Your task to perform on an android device: install app "Contacts" Image 0: 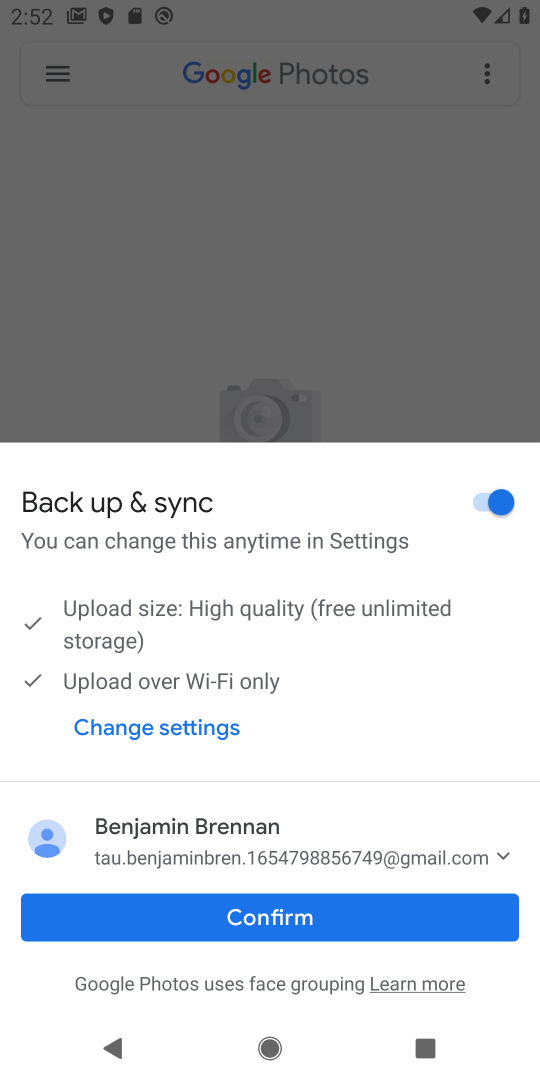
Step 0: press home button
Your task to perform on an android device: install app "Contacts" Image 1: 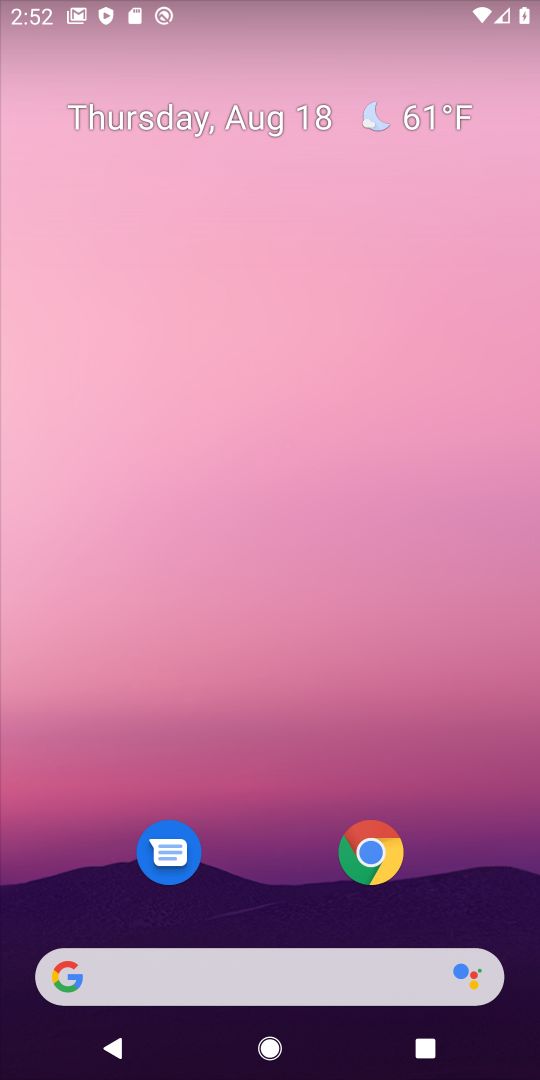
Step 1: drag from (275, 899) to (275, 41)
Your task to perform on an android device: install app "Contacts" Image 2: 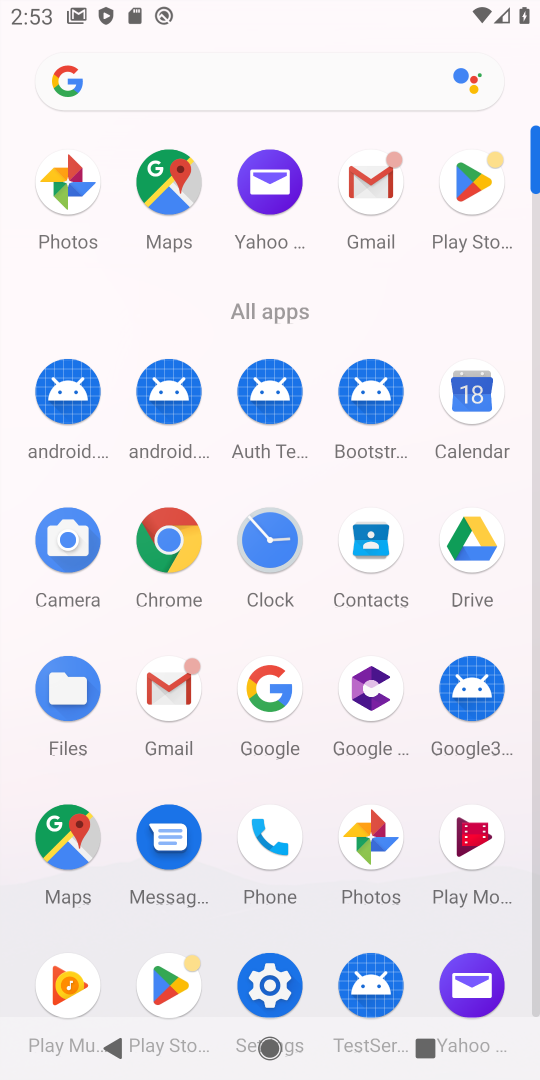
Step 2: click (370, 524)
Your task to perform on an android device: install app "Contacts" Image 3: 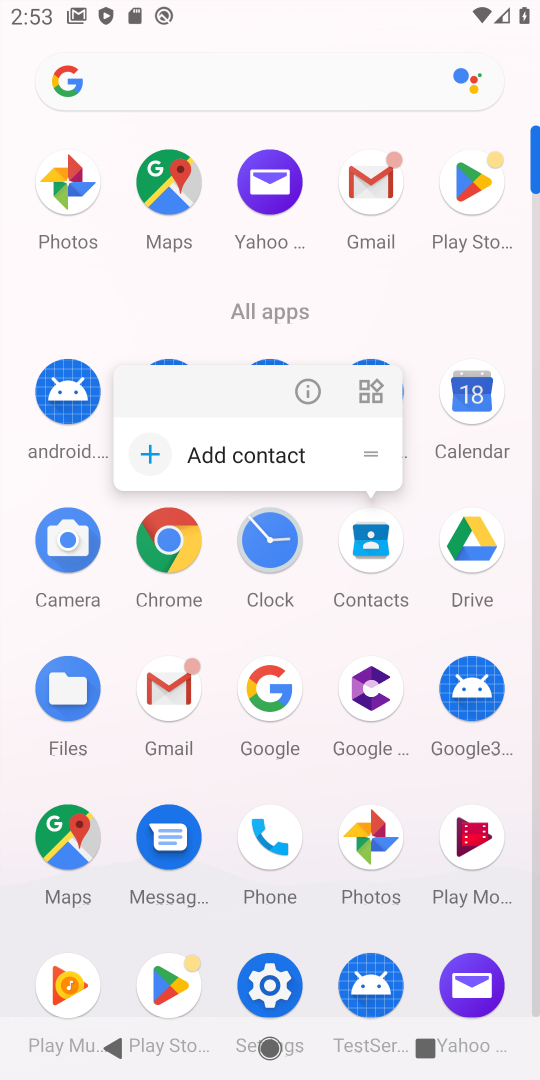
Step 3: drag from (247, 919) to (219, 204)
Your task to perform on an android device: install app "Contacts" Image 4: 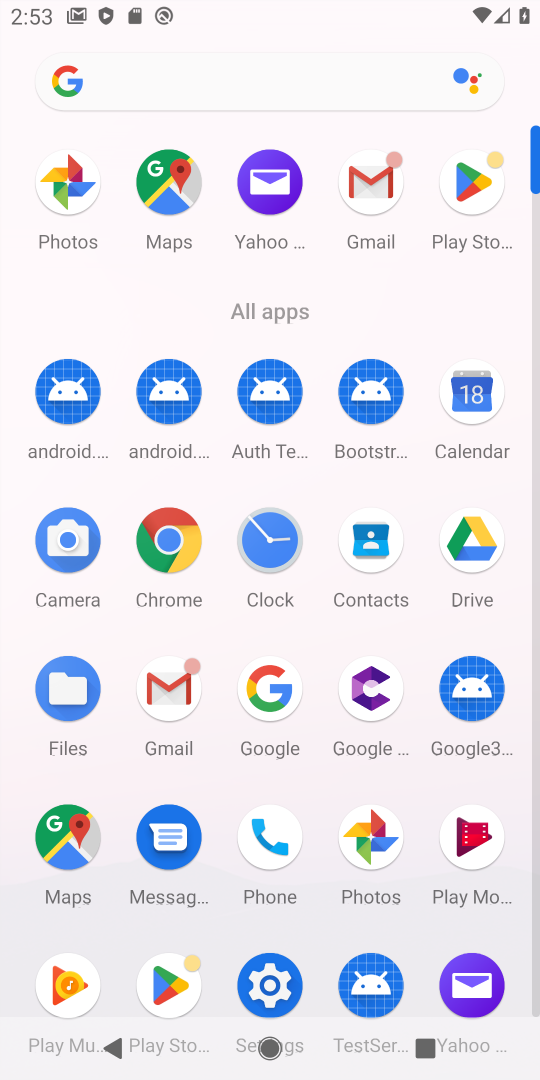
Step 4: click (458, 187)
Your task to perform on an android device: install app "Contacts" Image 5: 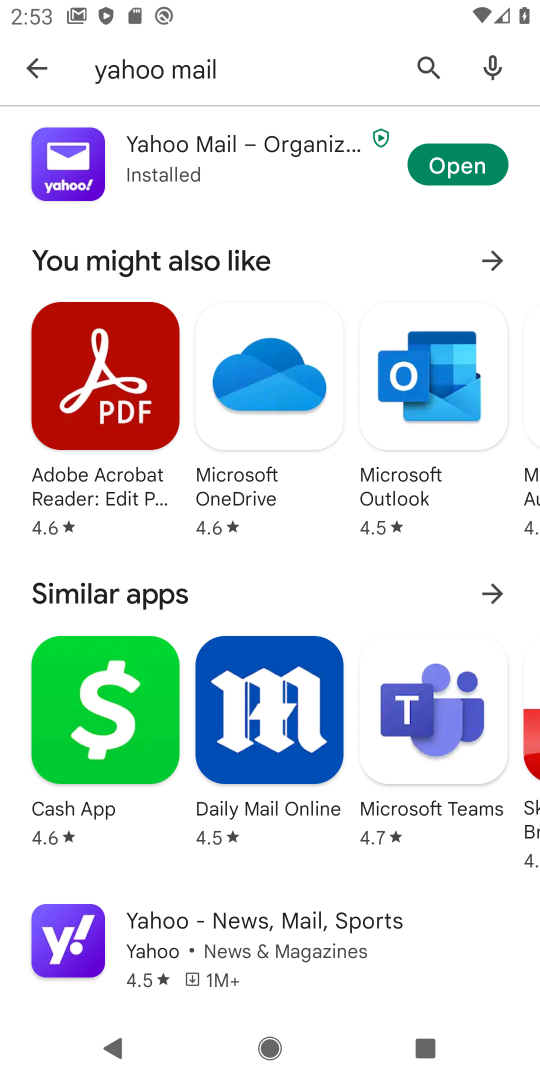
Step 5: click (422, 67)
Your task to perform on an android device: install app "Contacts" Image 6: 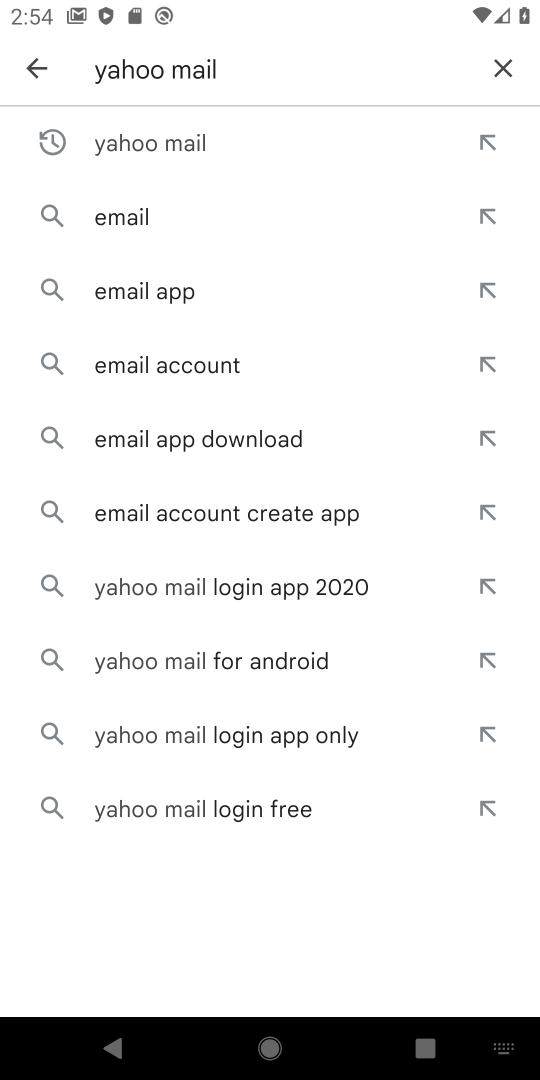
Step 6: click (491, 58)
Your task to perform on an android device: install app "Contacts" Image 7: 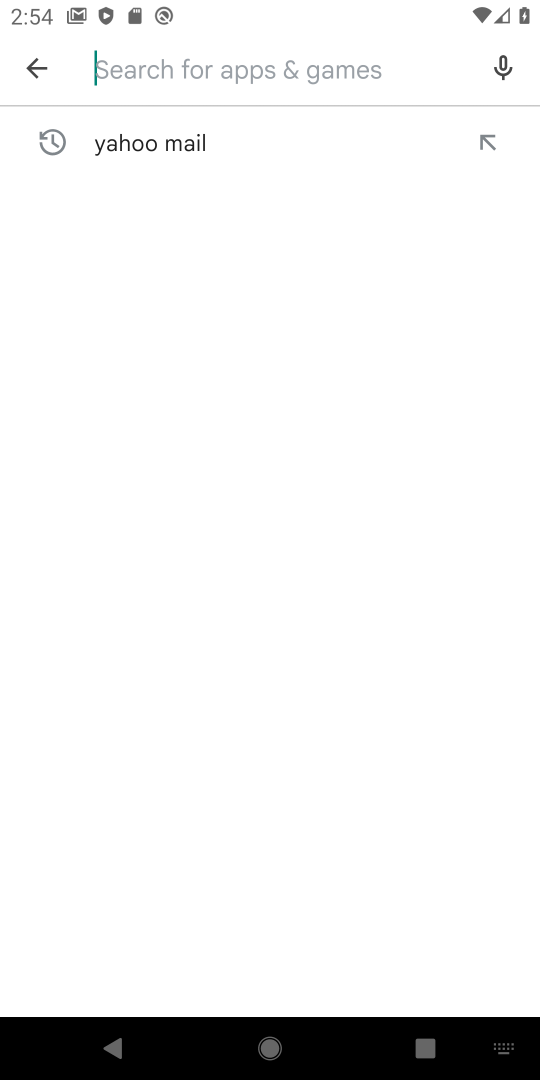
Step 7: type "Contacts"
Your task to perform on an android device: install app "Contacts" Image 8: 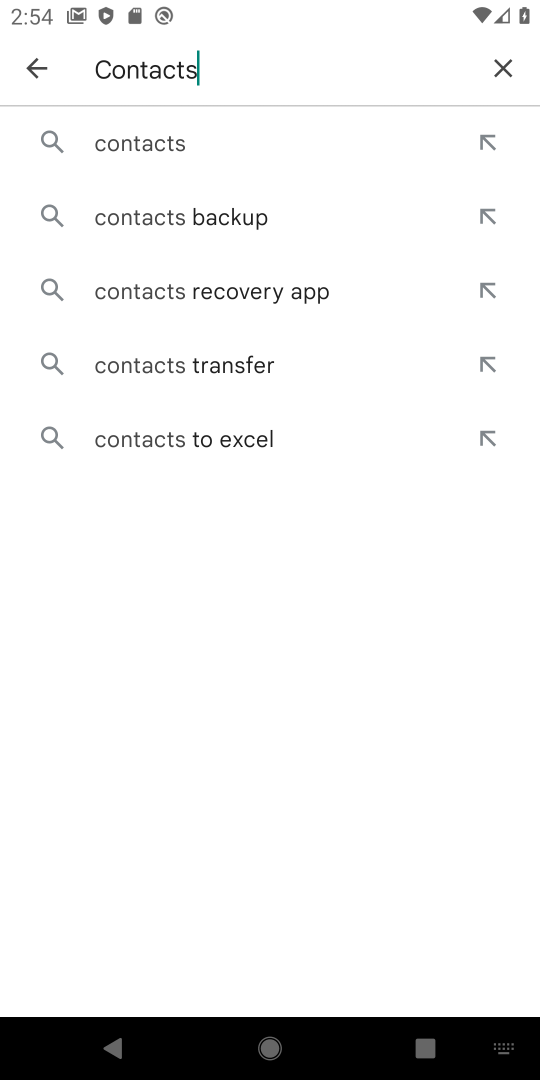
Step 8: click (164, 145)
Your task to perform on an android device: install app "Contacts" Image 9: 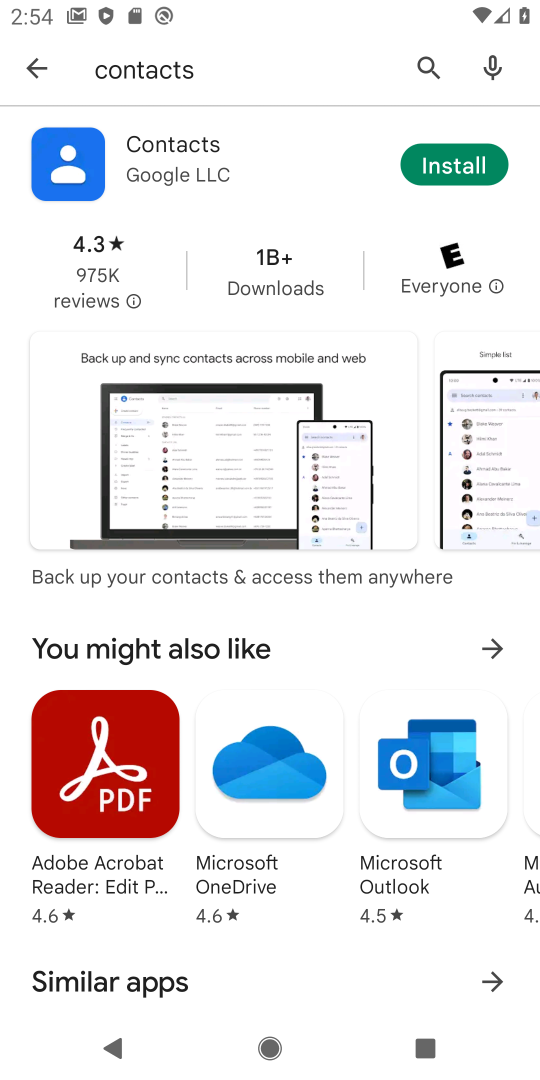
Step 9: click (471, 163)
Your task to perform on an android device: install app "Contacts" Image 10: 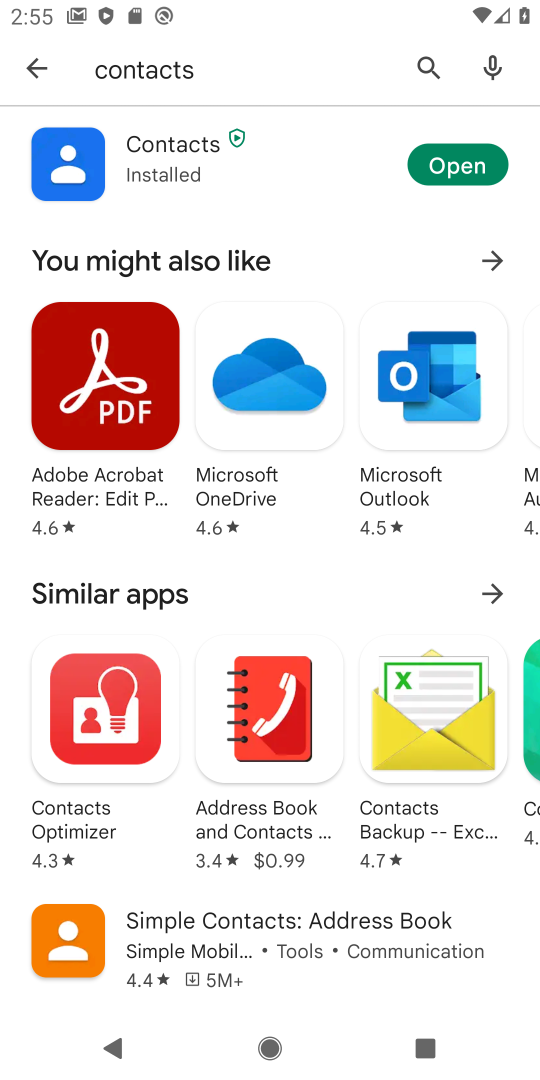
Step 10: click (474, 168)
Your task to perform on an android device: install app "Contacts" Image 11: 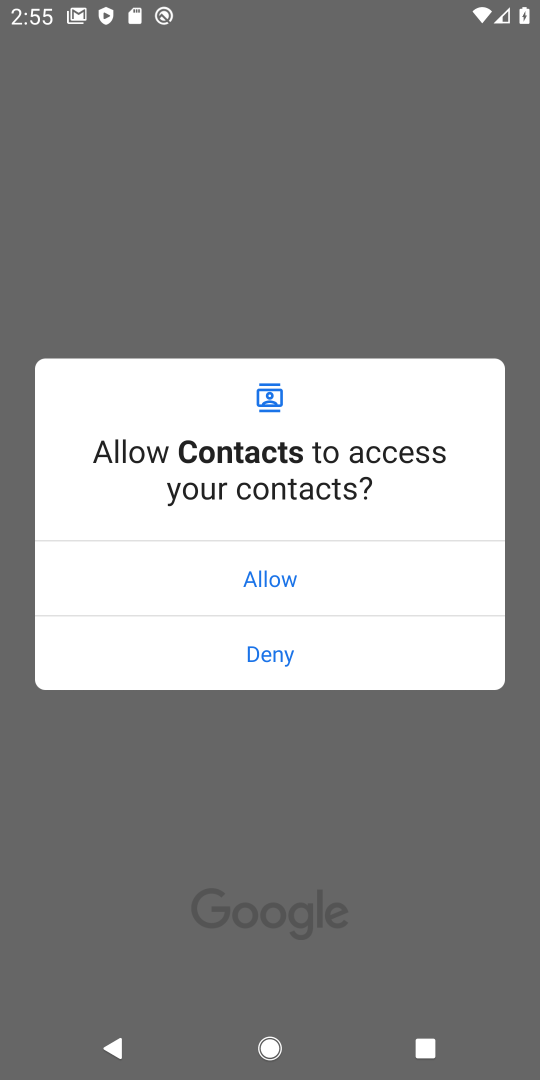
Step 11: click (225, 577)
Your task to perform on an android device: install app "Contacts" Image 12: 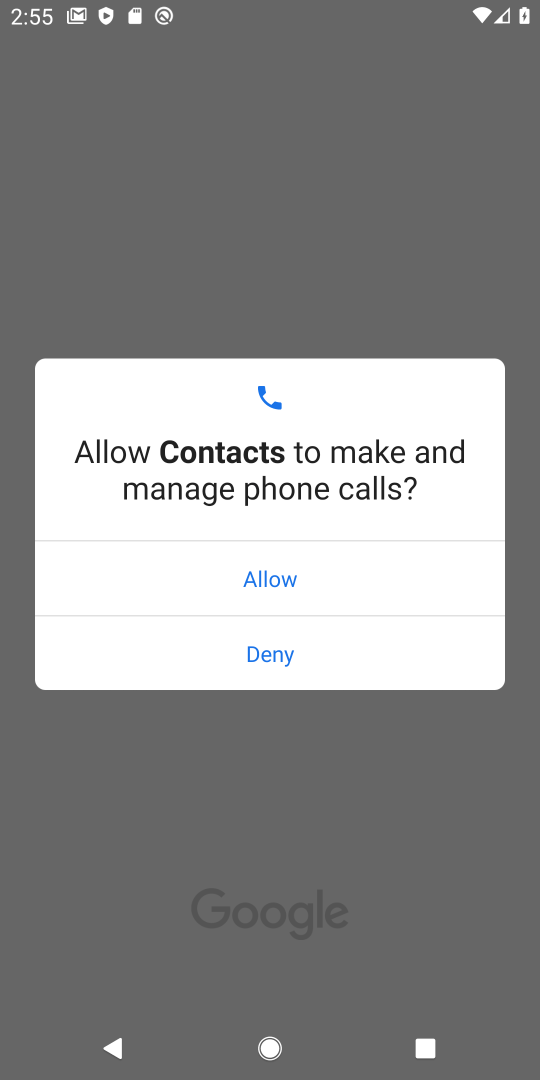
Step 12: click (252, 567)
Your task to perform on an android device: install app "Contacts" Image 13: 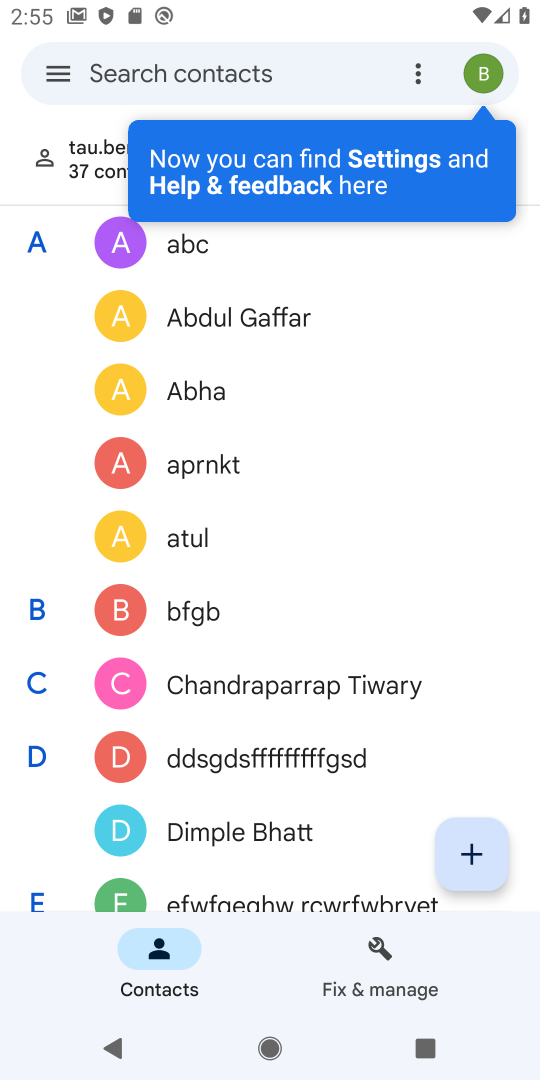
Step 13: task complete